Your task to perform on an android device: Go to Yahoo.com Image 0: 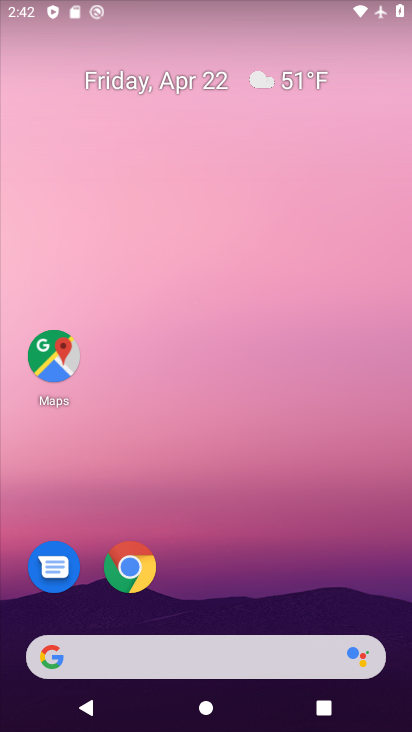
Step 0: drag from (256, 694) to (154, 73)
Your task to perform on an android device: Go to Yahoo.com Image 1: 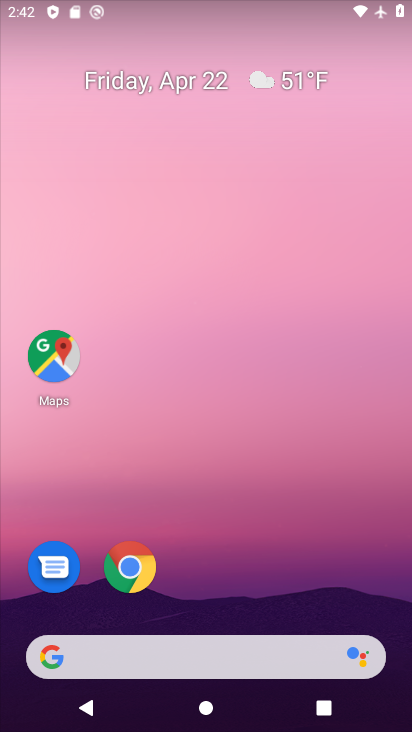
Step 1: drag from (244, 591) to (205, 191)
Your task to perform on an android device: Go to Yahoo.com Image 2: 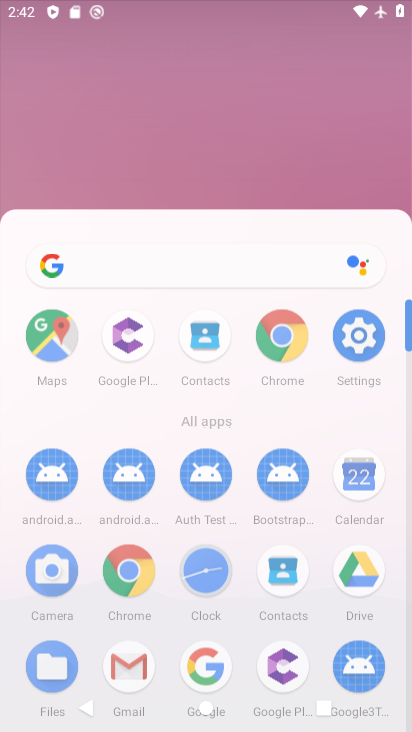
Step 2: drag from (234, 650) to (168, 113)
Your task to perform on an android device: Go to Yahoo.com Image 3: 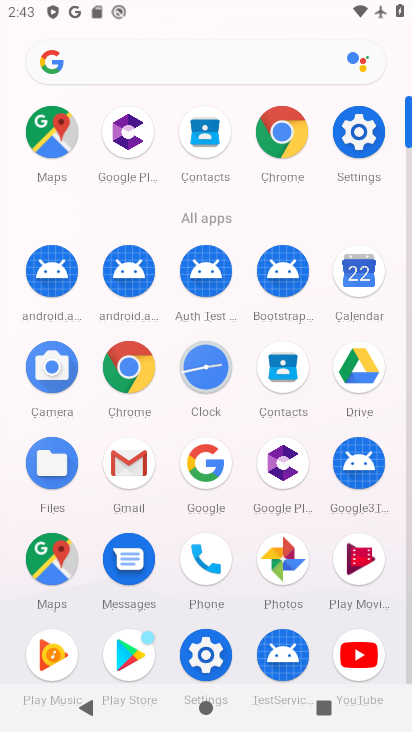
Step 3: click (280, 137)
Your task to perform on an android device: Go to Yahoo.com Image 4: 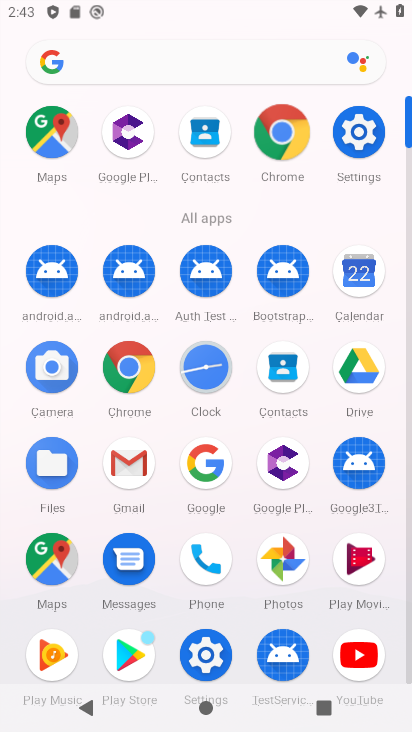
Step 4: click (270, 139)
Your task to perform on an android device: Go to Yahoo.com Image 5: 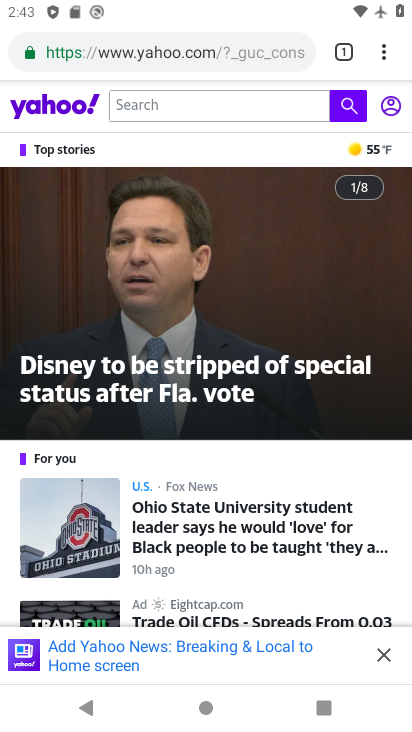
Step 5: task complete